Your task to perform on an android device: Search for vegetarian restaurants on Maps Image 0: 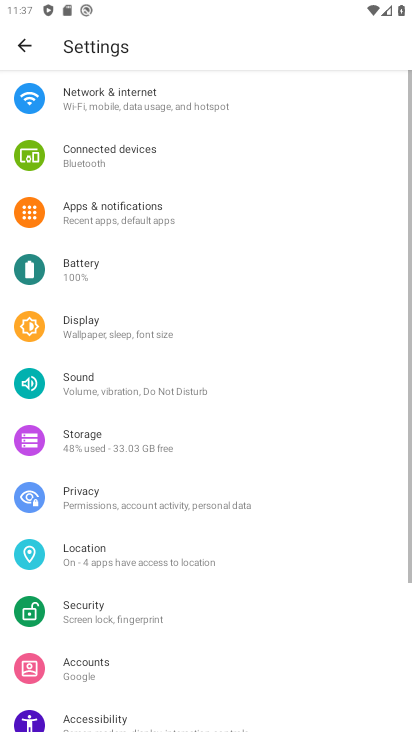
Step 0: press home button
Your task to perform on an android device: Search for vegetarian restaurants on Maps Image 1: 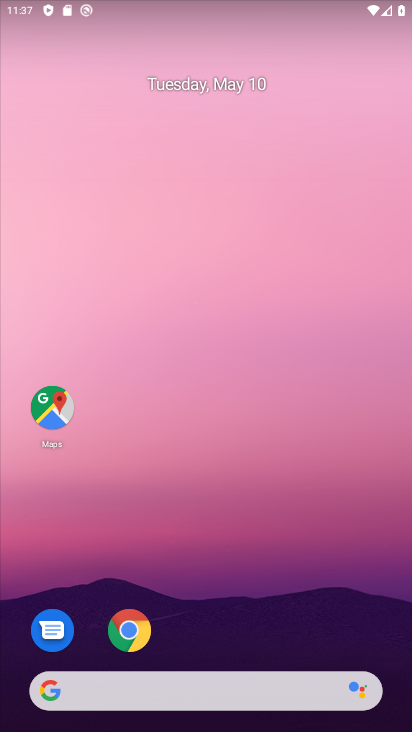
Step 1: click (312, 609)
Your task to perform on an android device: Search for vegetarian restaurants on Maps Image 2: 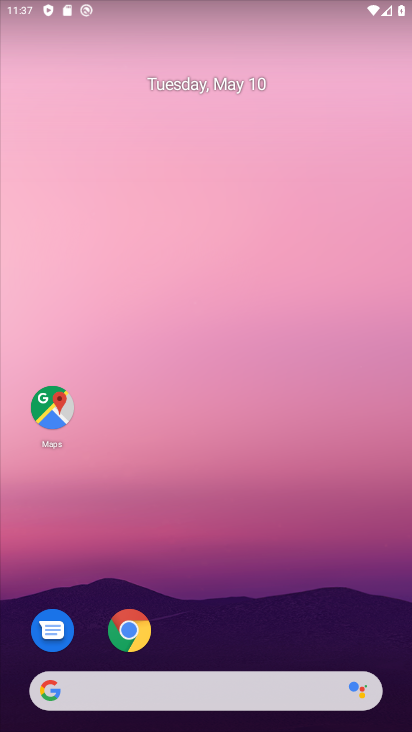
Step 2: click (49, 399)
Your task to perform on an android device: Search for vegetarian restaurants on Maps Image 3: 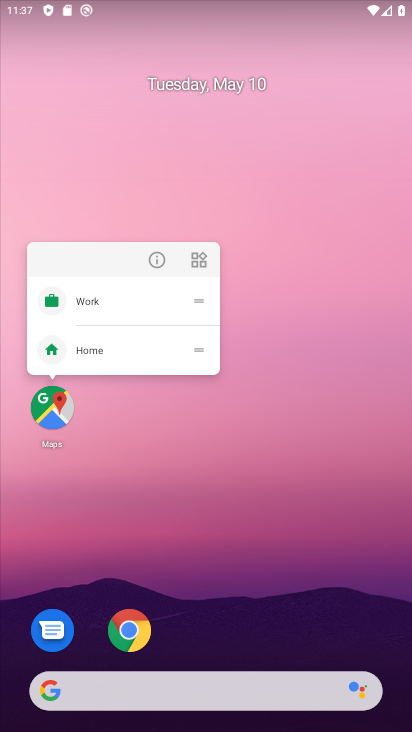
Step 3: click (52, 410)
Your task to perform on an android device: Search for vegetarian restaurants on Maps Image 4: 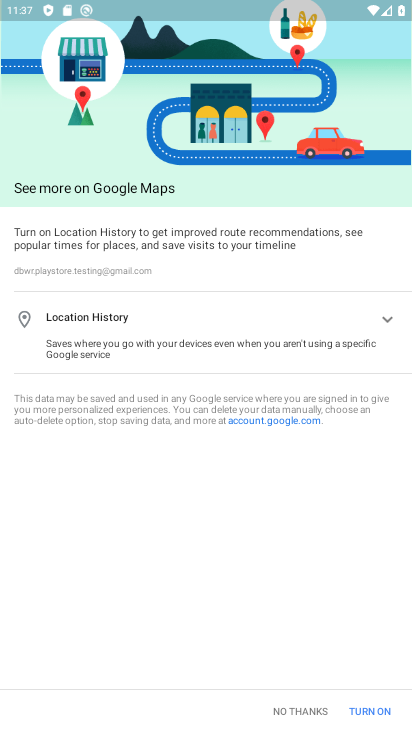
Step 4: click (310, 710)
Your task to perform on an android device: Search for vegetarian restaurants on Maps Image 5: 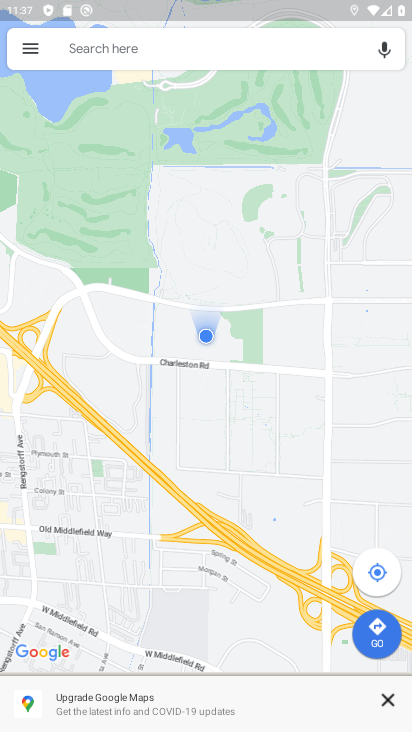
Step 5: click (190, 48)
Your task to perform on an android device: Search for vegetarian restaurants on Maps Image 6: 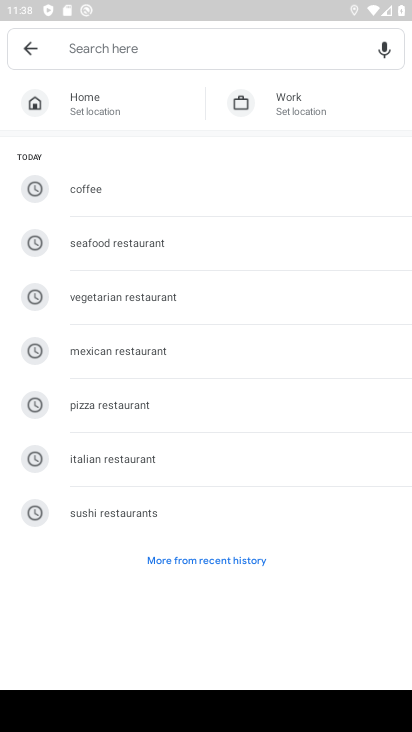
Step 6: type "vegetarian restaurants"
Your task to perform on an android device: Search for vegetarian restaurants on Maps Image 7: 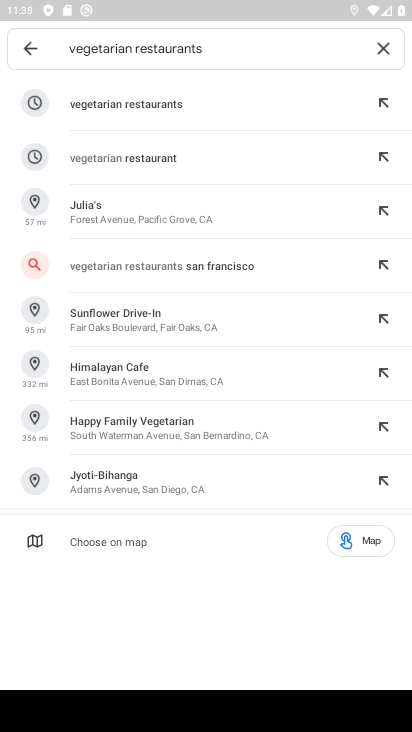
Step 7: click (148, 101)
Your task to perform on an android device: Search for vegetarian restaurants on Maps Image 8: 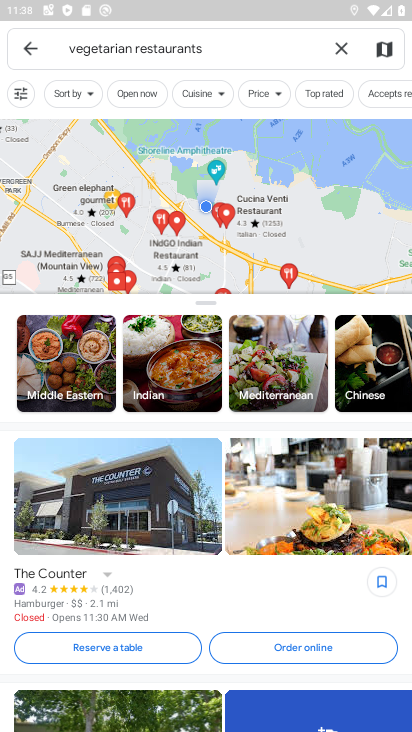
Step 8: task complete